Your task to perform on an android device: Search for Italian restaurants on Maps Image 0: 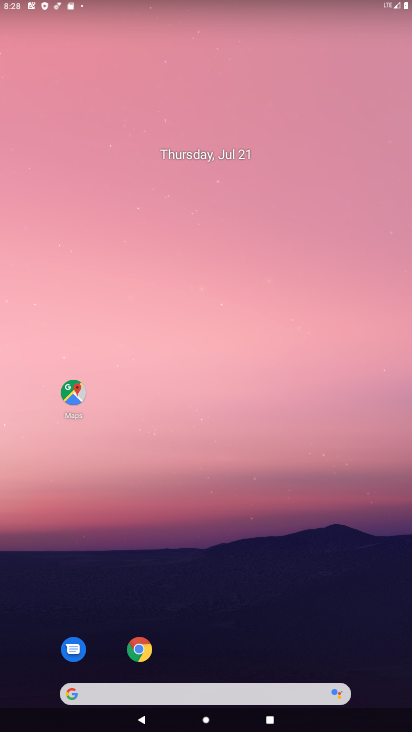
Step 0: click (77, 391)
Your task to perform on an android device: Search for Italian restaurants on Maps Image 1: 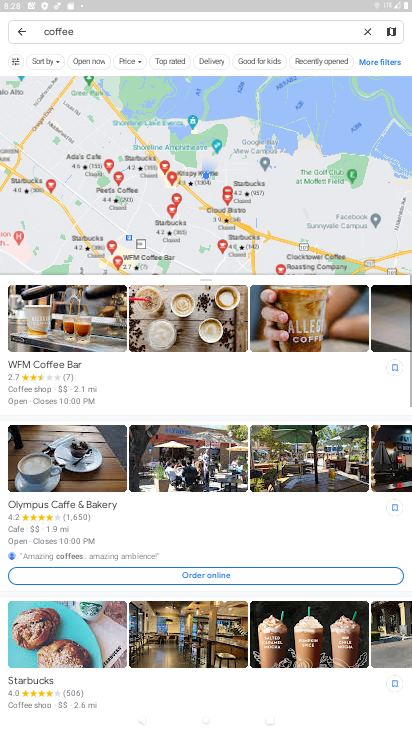
Step 1: click (370, 26)
Your task to perform on an android device: Search for Italian restaurants on Maps Image 2: 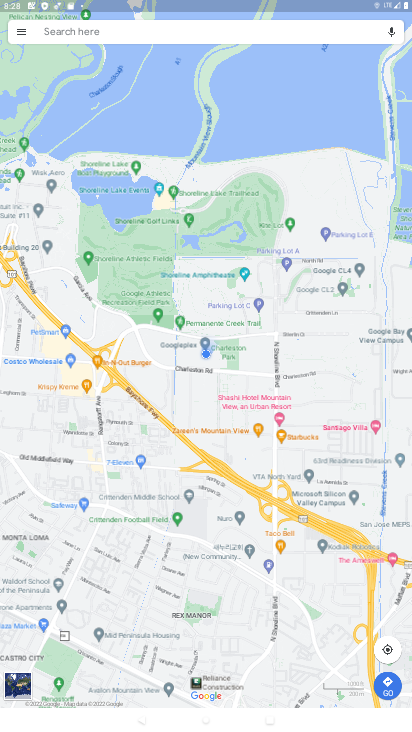
Step 2: click (168, 30)
Your task to perform on an android device: Search for Italian restaurants on Maps Image 3: 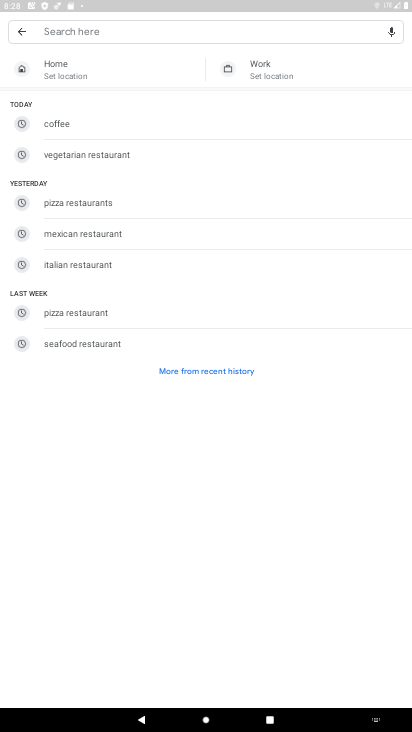
Step 3: type "italian restaurants"
Your task to perform on an android device: Search for Italian restaurants on Maps Image 4: 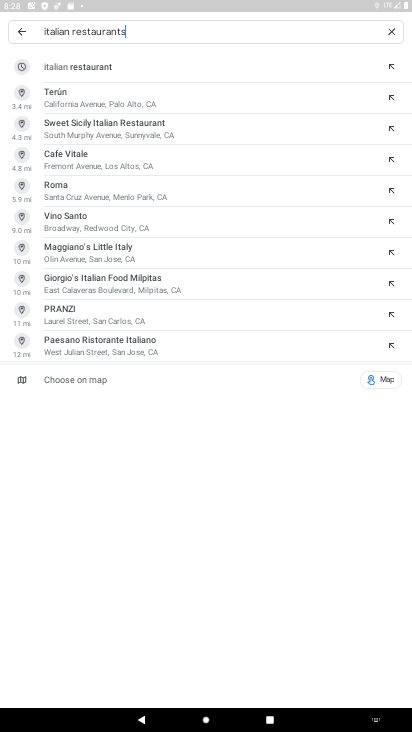
Step 4: click (99, 68)
Your task to perform on an android device: Search for Italian restaurants on Maps Image 5: 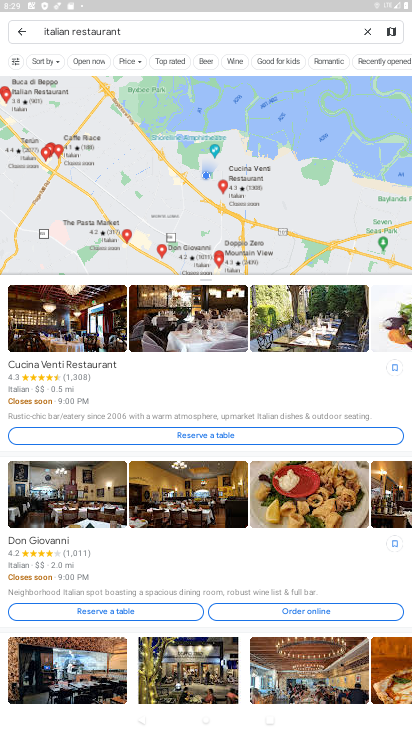
Step 5: task complete